Your task to perform on an android device: turn off picture-in-picture Image 0: 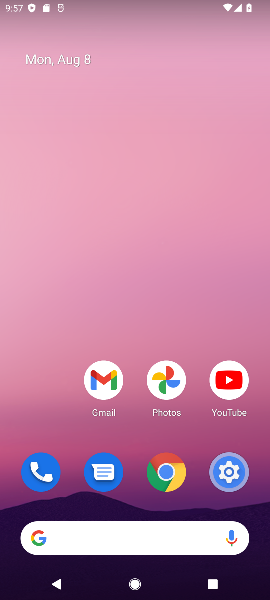
Step 0: drag from (199, 341) to (173, 37)
Your task to perform on an android device: turn off picture-in-picture Image 1: 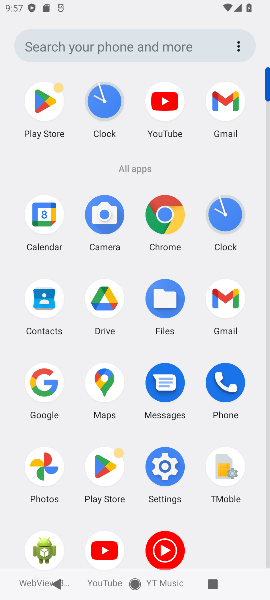
Step 1: click (167, 236)
Your task to perform on an android device: turn off picture-in-picture Image 2: 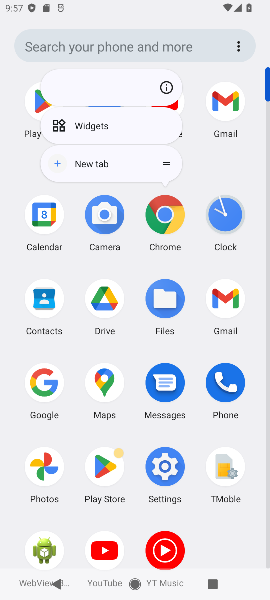
Step 2: click (165, 94)
Your task to perform on an android device: turn off picture-in-picture Image 3: 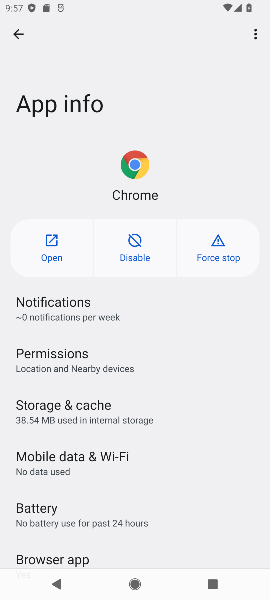
Step 3: drag from (163, 536) to (141, 124)
Your task to perform on an android device: turn off picture-in-picture Image 4: 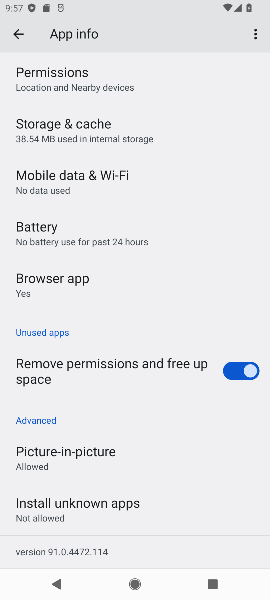
Step 4: click (147, 460)
Your task to perform on an android device: turn off picture-in-picture Image 5: 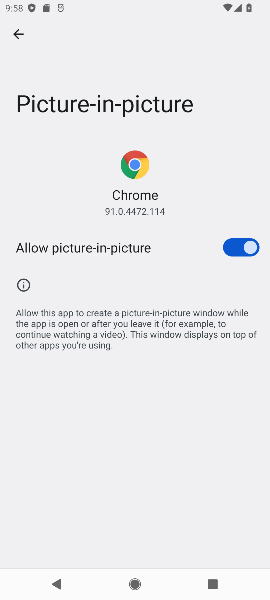
Step 5: click (238, 254)
Your task to perform on an android device: turn off picture-in-picture Image 6: 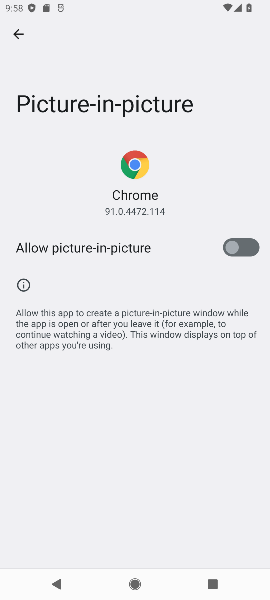
Step 6: task complete